Your task to perform on an android device: Open Yahoo.com Image 0: 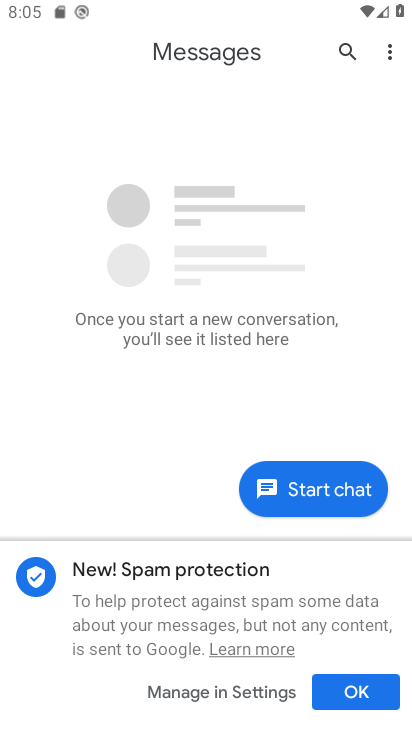
Step 0: press home button
Your task to perform on an android device: Open Yahoo.com Image 1: 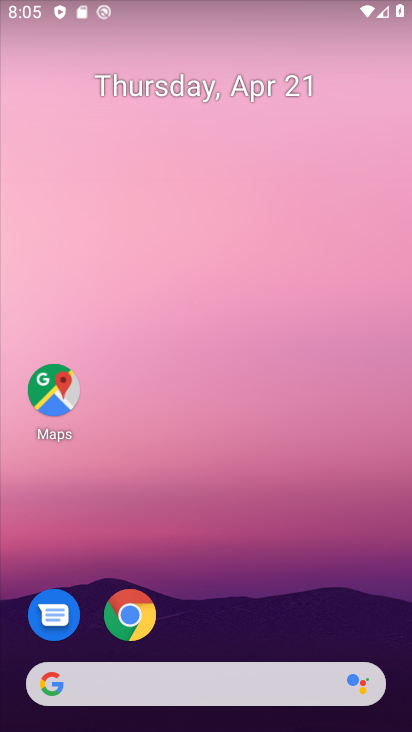
Step 1: click (142, 597)
Your task to perform on an android device: Open Yahoo.com Image 2: 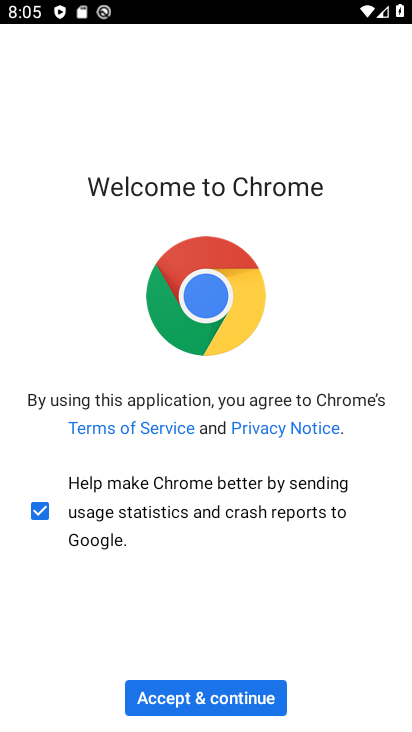
Step 2: click (228, 694)
Your task to perform on an android device: Open Yahoo.com Image 3: 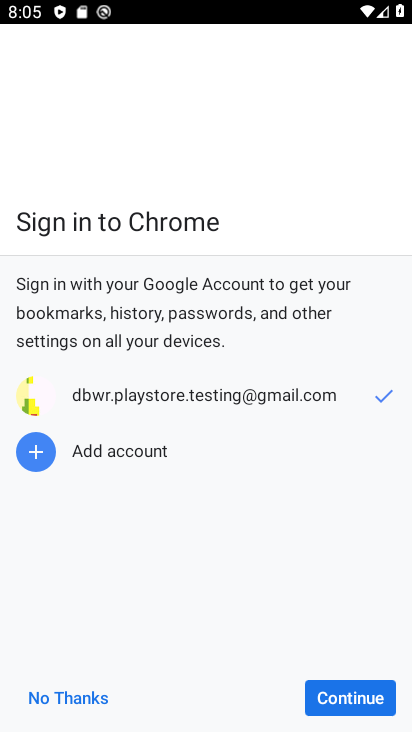
Step 3: click (352, 688)
Your task to perform on an android device: Open Yahoo.com Image 4: 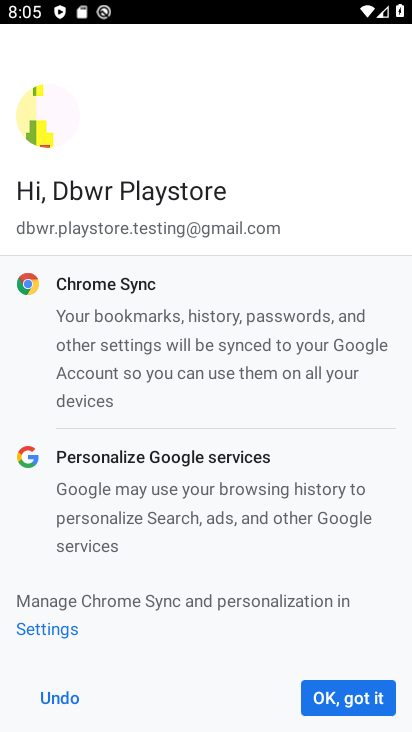
Step 4: click (350, 703)
Your task to perform on an android device: Open Yahoo.com Image 5: 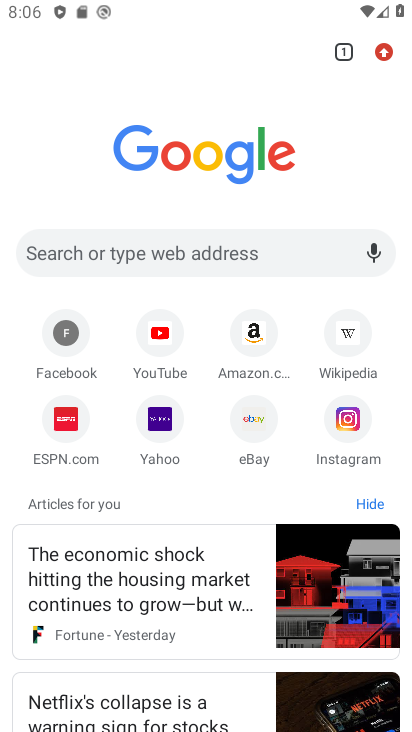
Step 5: click (168, 255)
Your task to perform on an android device: Open Yahoo.com Image 6: 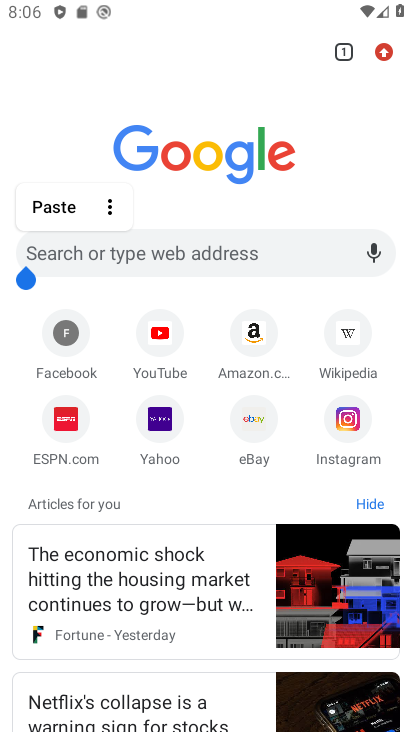
Step 6: click (199, 251)
Your task to perform on an android device: Open Yahoo.com Image 7: 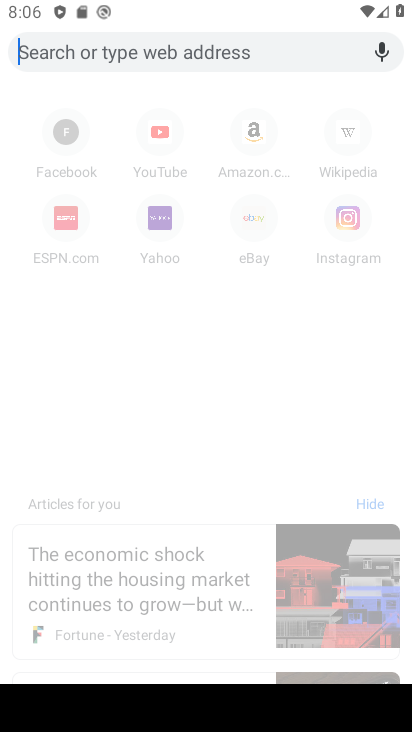
Step 7: type "yahoo.com"
Your task to perform on an android device: Open Yahoo.com Image 8: 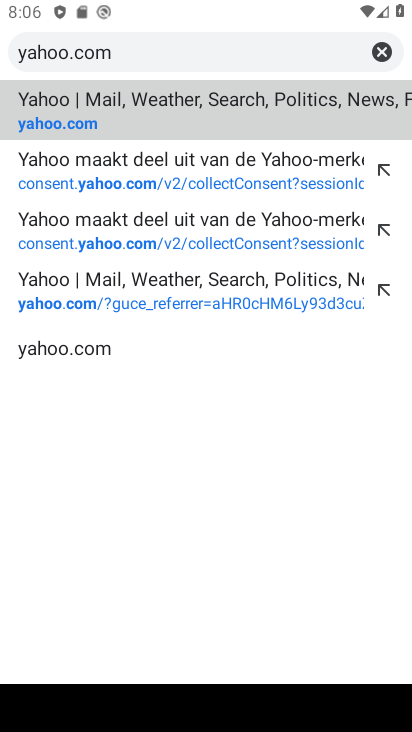
Step 8: click (87, 108)
Your task to perform on an android device: Open Yahoo.com Image 9: 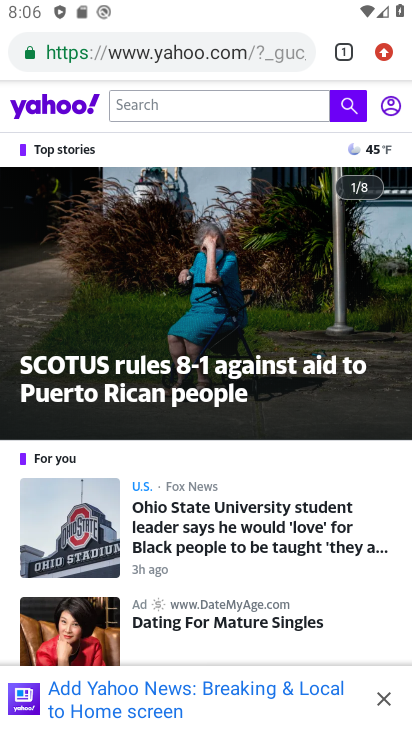
Step 9: task complete